Your task to perform on an android device: delete browsing data in the chrome app Image 0: 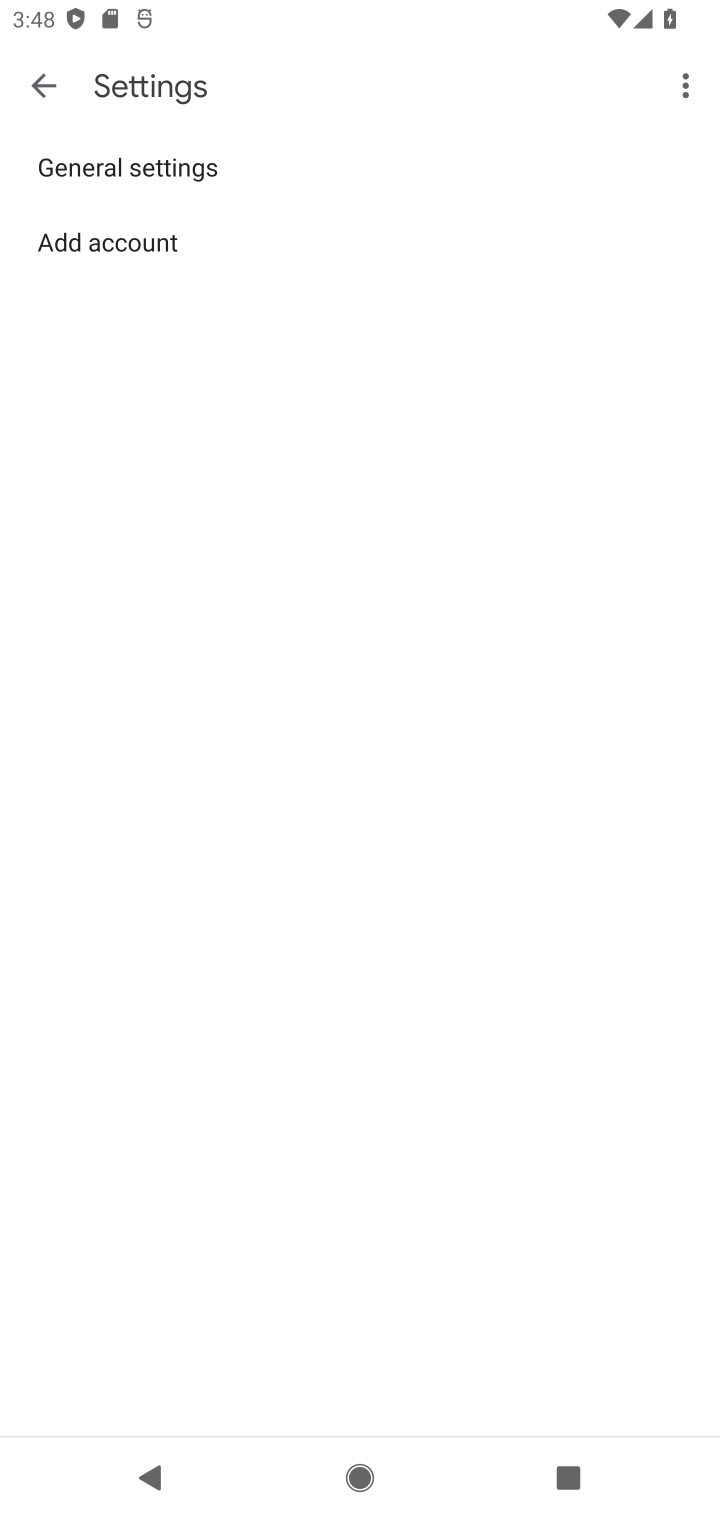
Step 0: press home button
Your task to perform on an android device: delete browsing data in the chrome app Image 1: 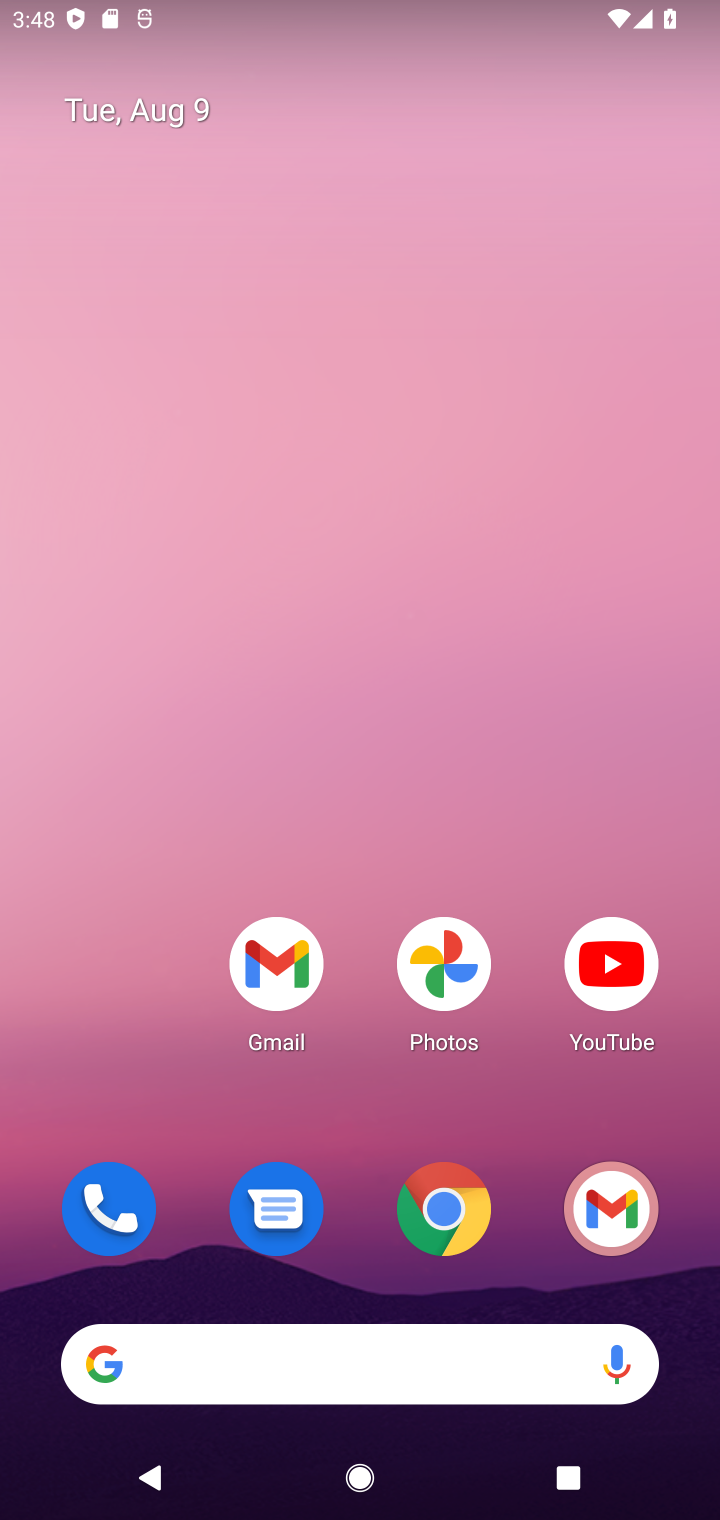
Step 1: click (449, 1203)
Your task to perform on an android device: delete browsing data in the chrome app Image 2: 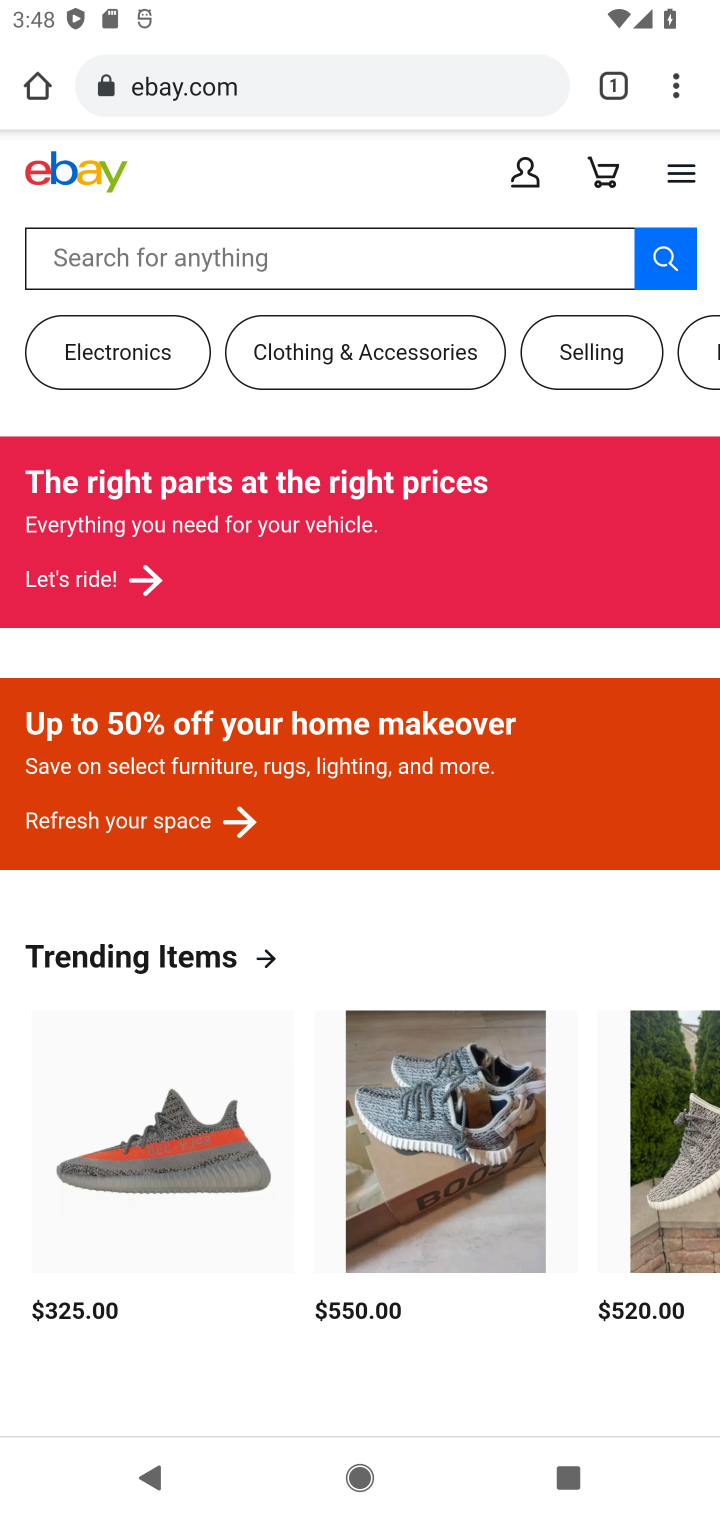
Step 2: click (674, 97)
Your task to perform on an android device: delete browsing data in the chrome app Image 3: 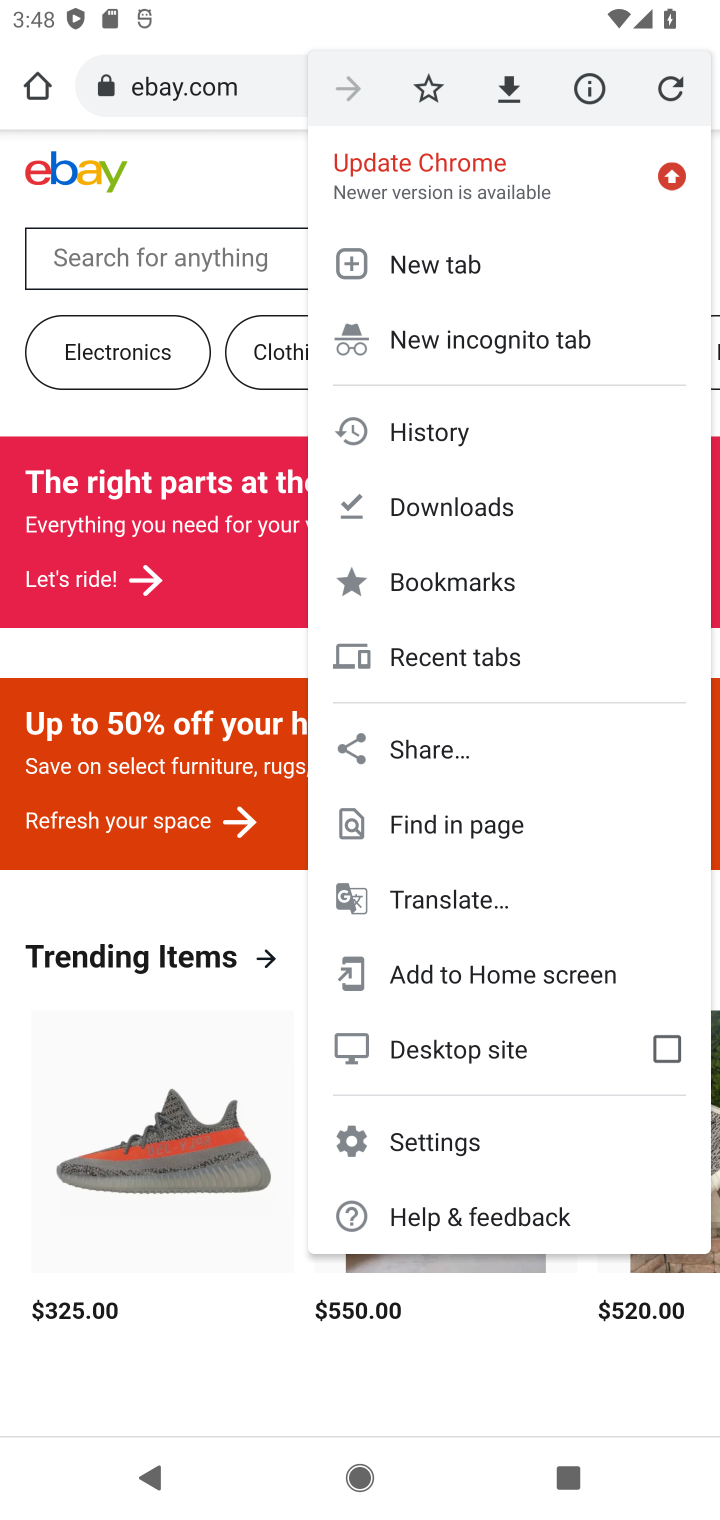
Step 3: click (436, 430)
Your task to perform on an android device: delete browsing data in the chrome app Image 4: 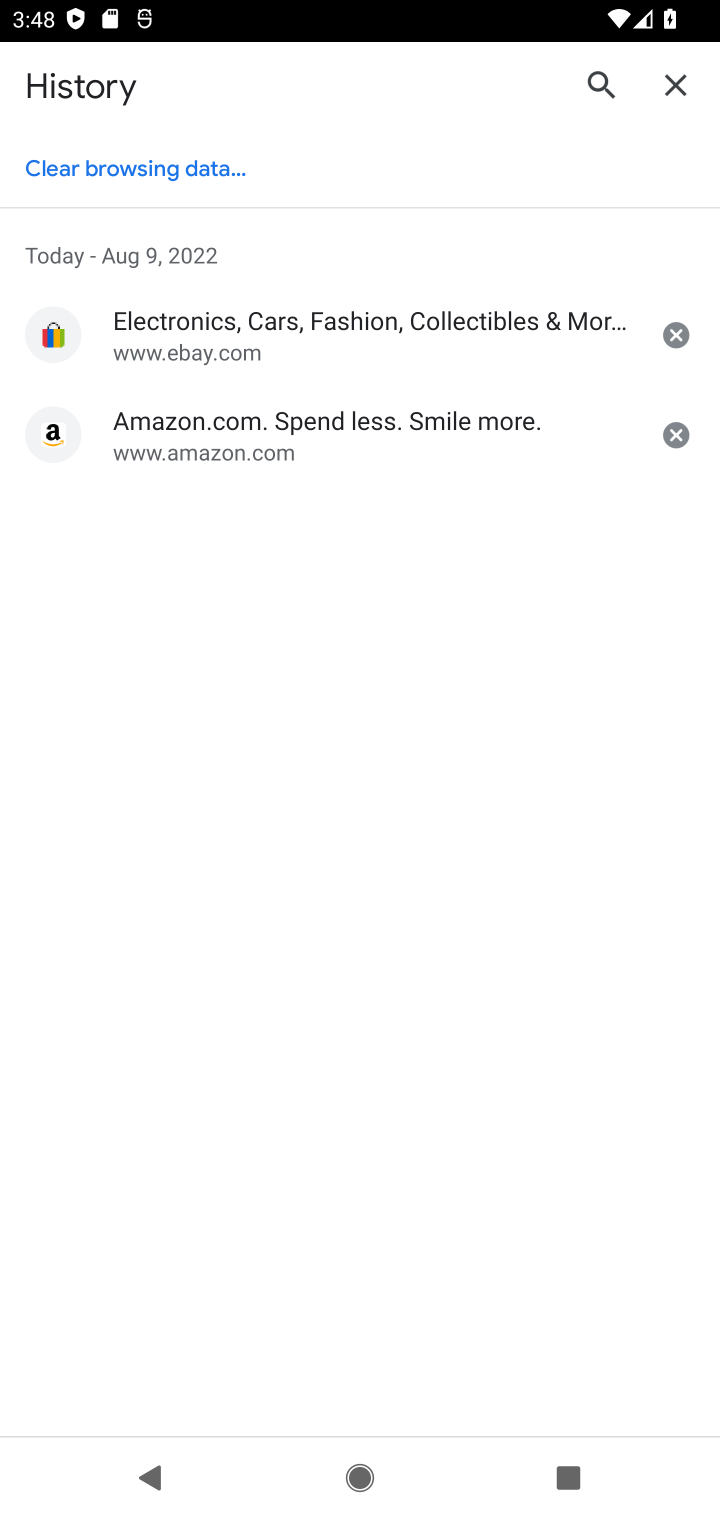
Step 4: click (126, 161)
Your task to perform on an android device: delete browsing data in the chrome app Image 5: 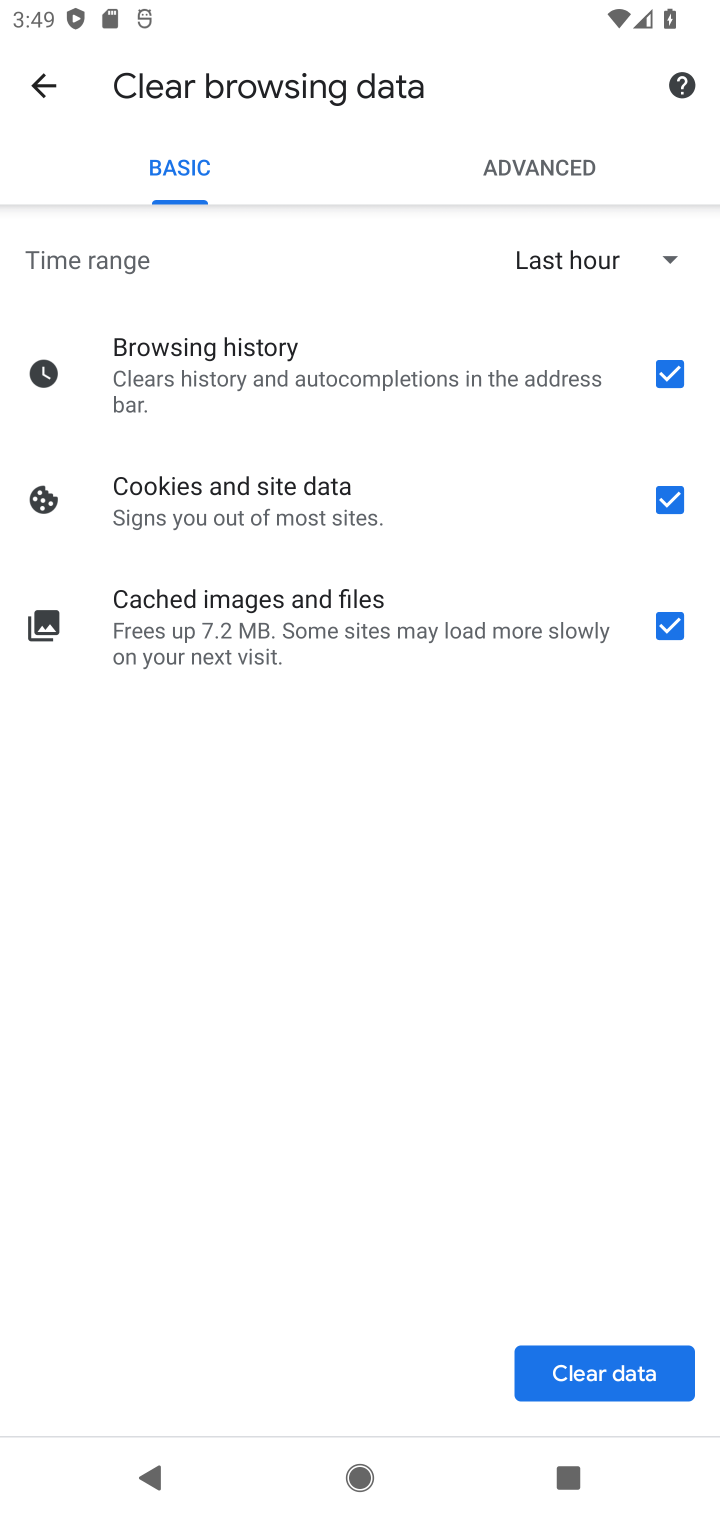
Step 5: click (600, 1371)
Your task to perform on an android device: delete browsing data in the chrome app Image 6: 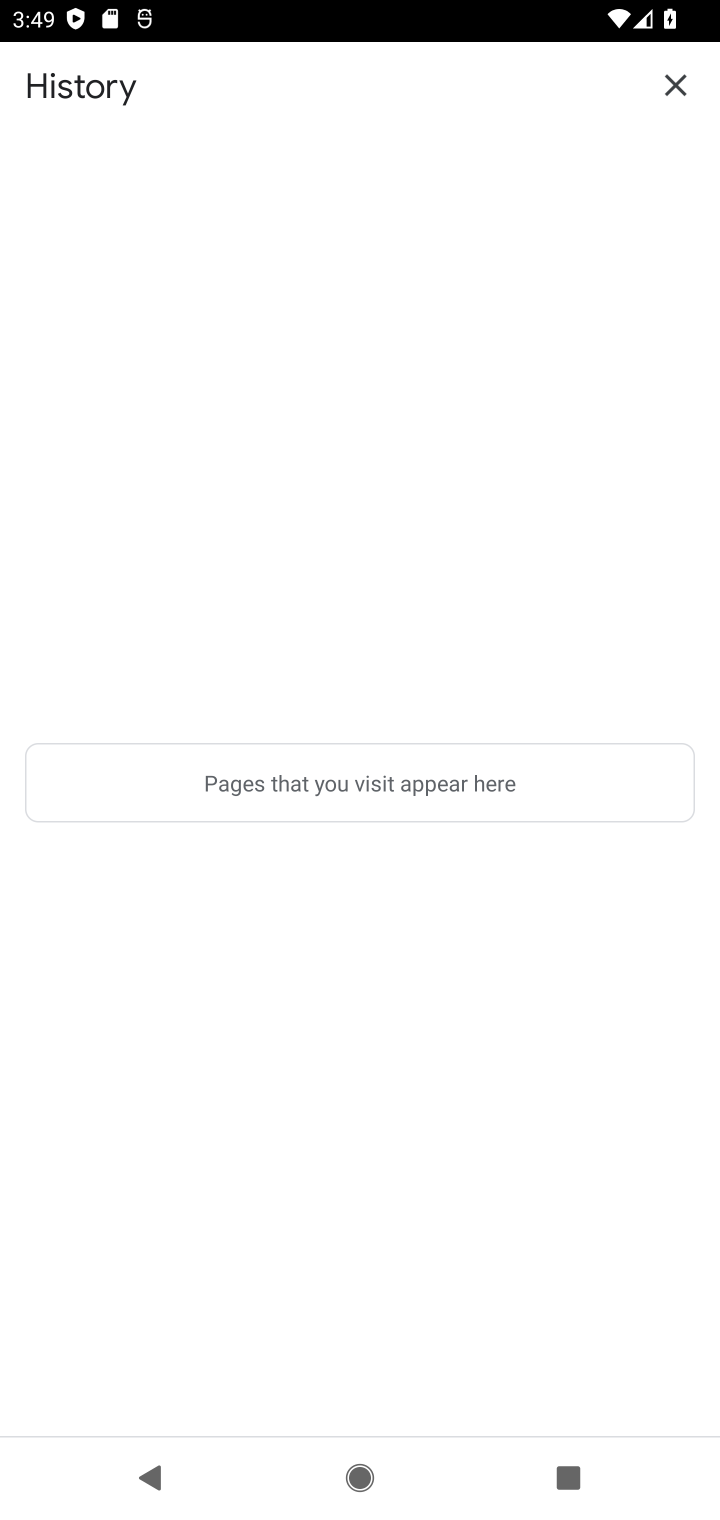
Step 6: task complete